Your task to perform on an android device: turn off sleep mode Image 0: 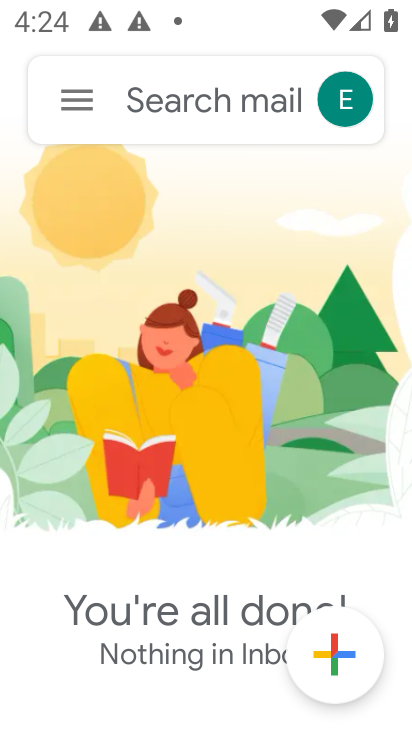
Step 0: press home button
Your task to perform on an android device: turn off sleep mode Image 1: 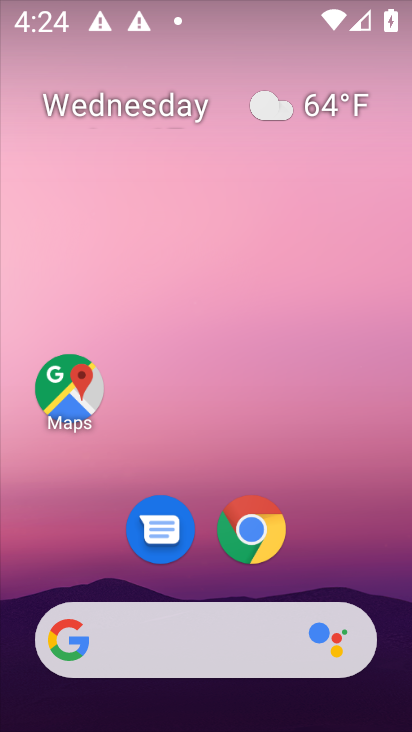
Step 1: drag from (183, 571) to (94, 572)
Your task to perform on an android device: turn off sleep mode Image 2: 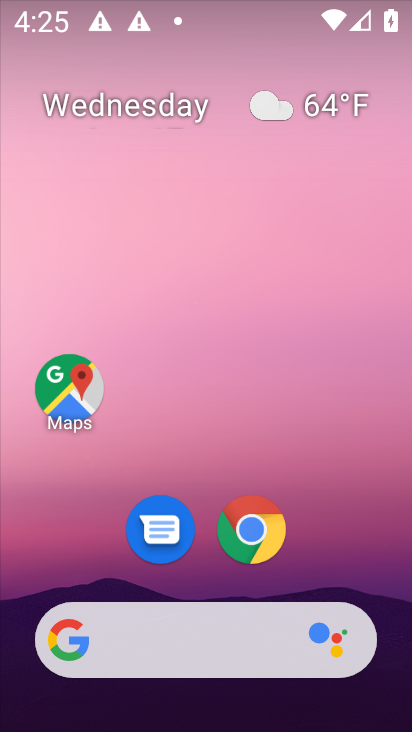
Step 2: click (176, 190)
Your task to perform on an android device: turn off sleep mode Image 3: 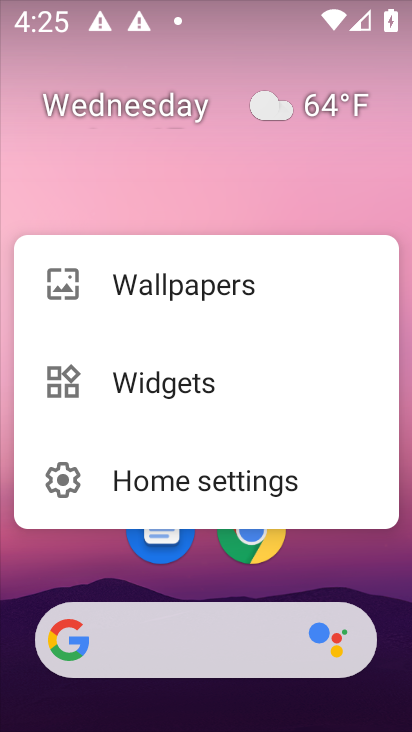
Step 3: click (308, 537)
Your task to perform on an android device: turn off sleep mode Image 4: 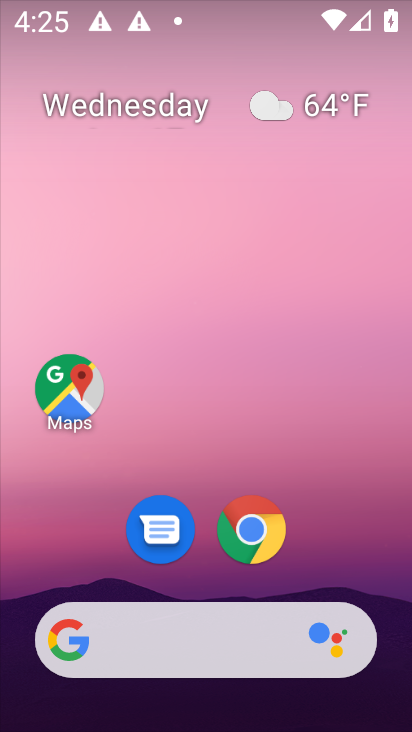
Step 4: drag from (201, 503) to (212, 72)
Your task to perform on an android device: turn off sleep mode Image 5: 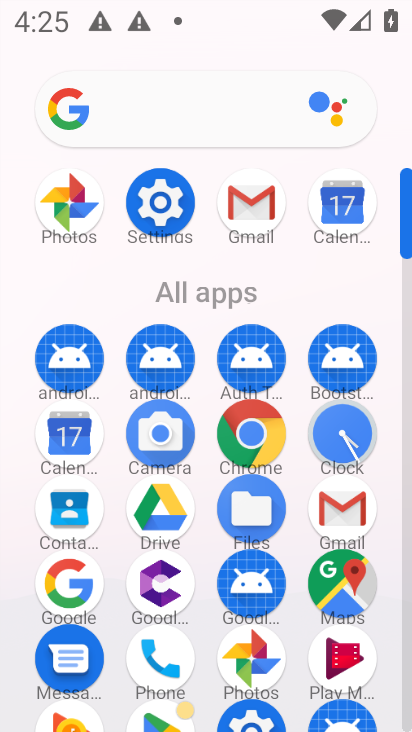
Step 5: click (169, 210)
Your task to perform on an android device: turn off sleep mode Image 6: 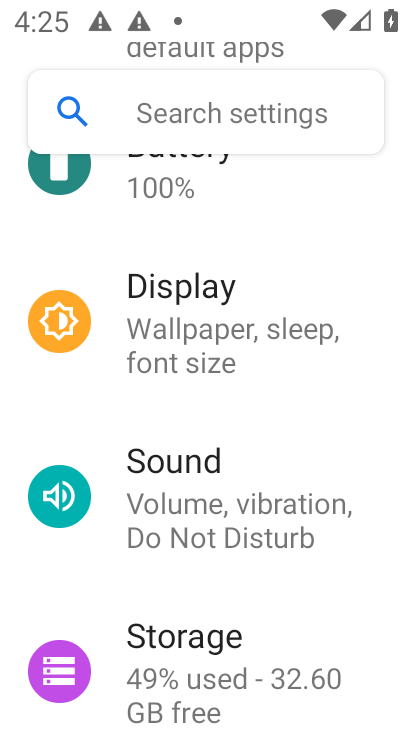
Step 6: click (214, 104)
Your task to perform on an android device: turn off sleep mode Image 7: 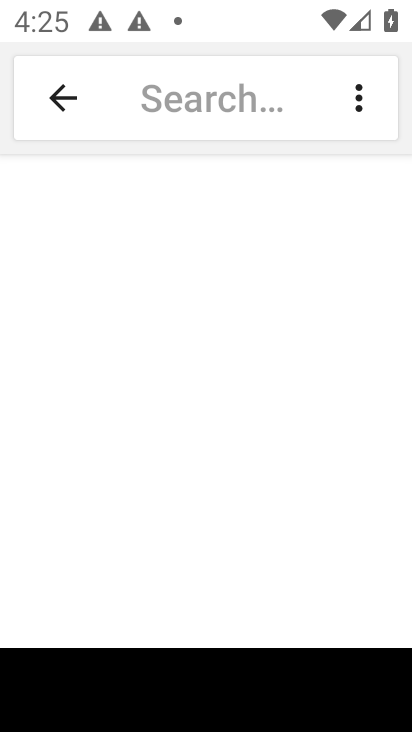
Step 7: type "sleep mode"
Your task to perform on an android device: turn off sleep mode Image 8: 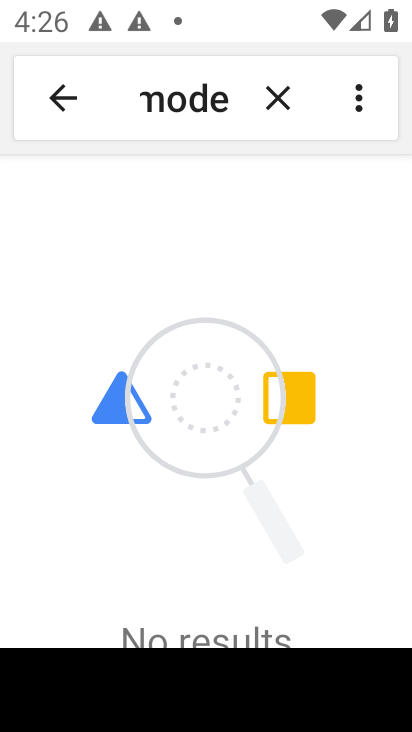
Step 8: task complete